Your task to perform on an android device: Check the news Image 0: 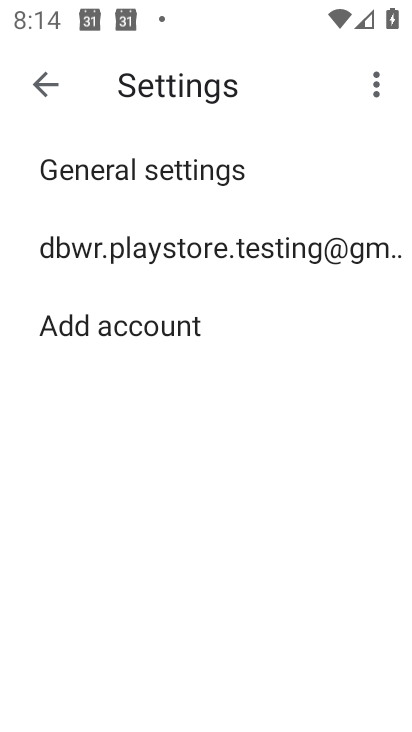
Step 0: press home button
Your task to perform on an android device: Check the news Image 1: 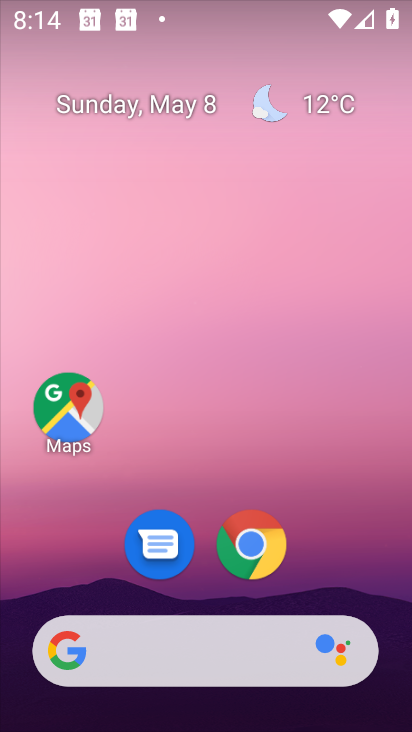
Step 1: task complete